Your task to perform on an android device: turn off sleep mode Image 0: 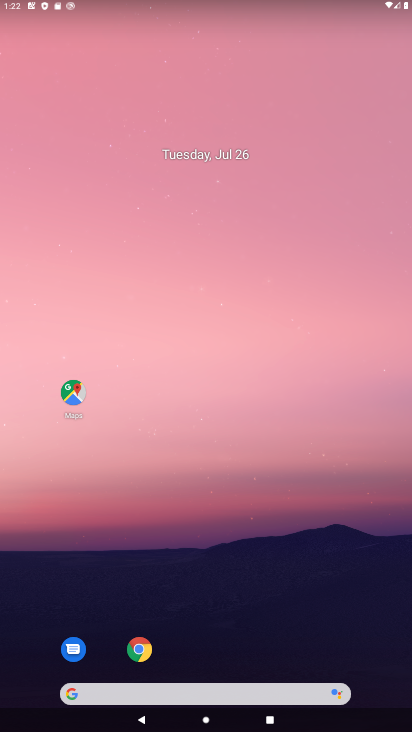
Step 0: drag from (285, 517) to (159, 22)
Your task to perform on an android device: turn off sleep mode Image 1: 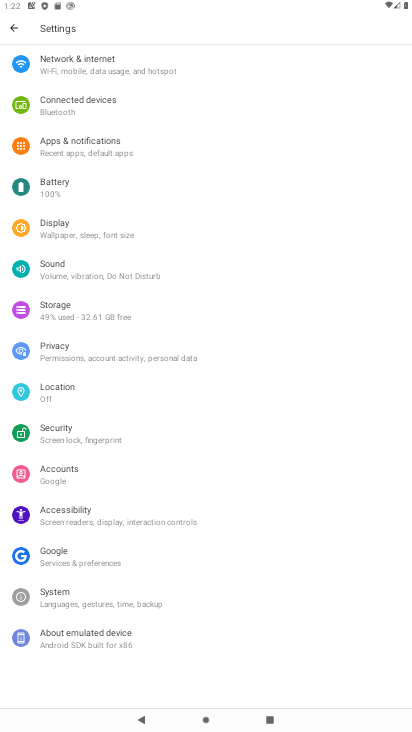
Step 1: press home button
Your task to perform on an android device: turn off sleep mode Image 2: 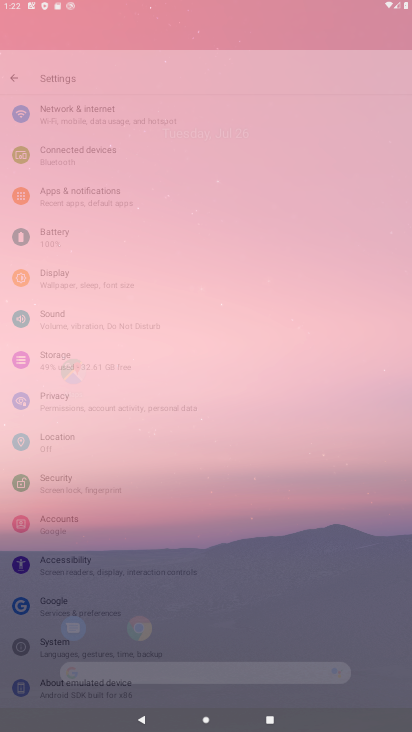
Step 2: drag from (390, 682) to (182, 13)
Your task to perform on an android device: turn off sleep mode Image 3: 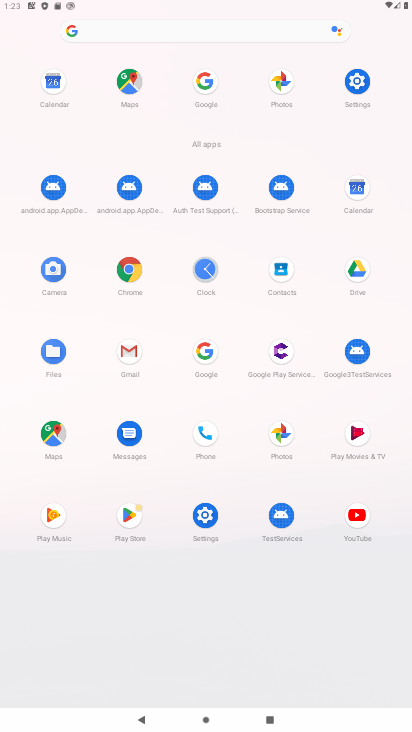
Step 3: click (202, 534)
Your task to perform on an android device: turn off sleep mode Image 4: 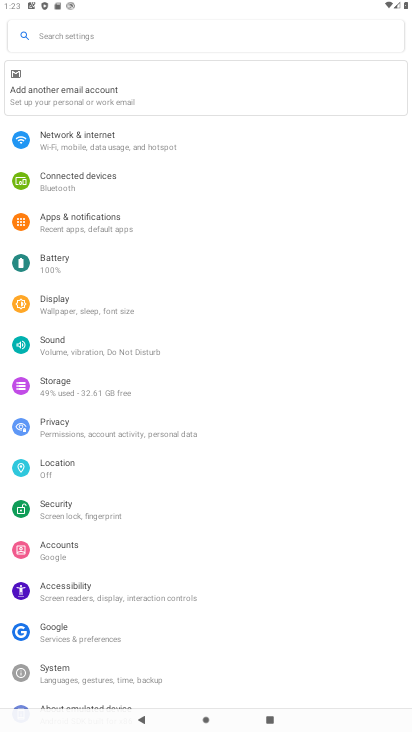
Step 4: task complete